Your task to perform on an android device: allow cookies in the chrome app Image 0: 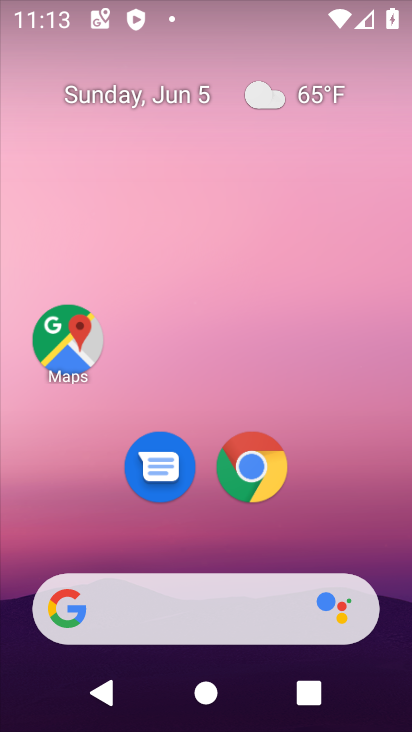
Step 0: click (274, 469)
Your task to perform on an android device: allow cookies in the chrome app Image 1: 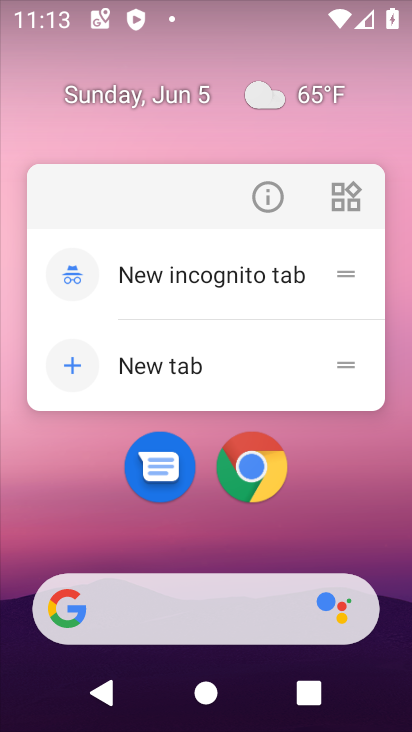
Step 1: click (274, 469)
Your task to perform on an android device: allow cookies in the chrome app Image 2: 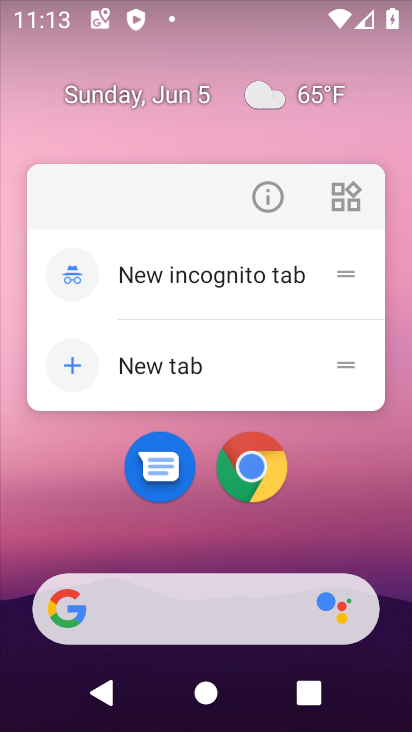
Step 2: click (234, 459)
Your task to perform on an android device: allow cookies in the chrome app Image 3: 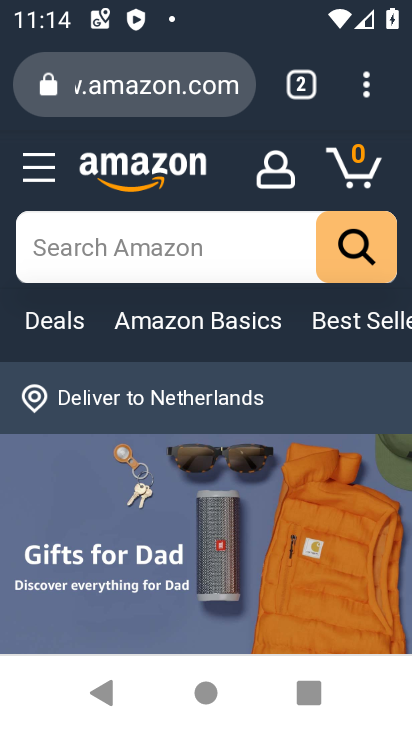
Step 3: drag from (362, 83) to (123, 513)
Your task to perform on an android device: allow cookies in the chrome app Image 4: 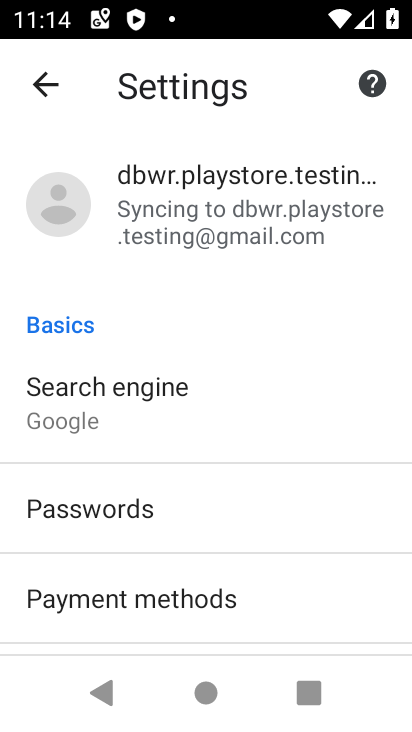
Step 4: drag from (221, 545) to (218, 331)
Your task to perform on an android device: allow cookies in the chrome app Image 5: 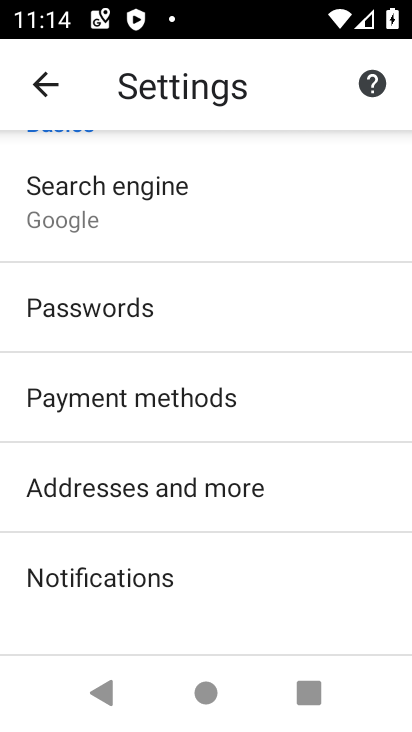
Step 5: drag from (226, 540) to (228, 401)
Your task to perform on an android device: allow cookies in the chrome app Image 6: 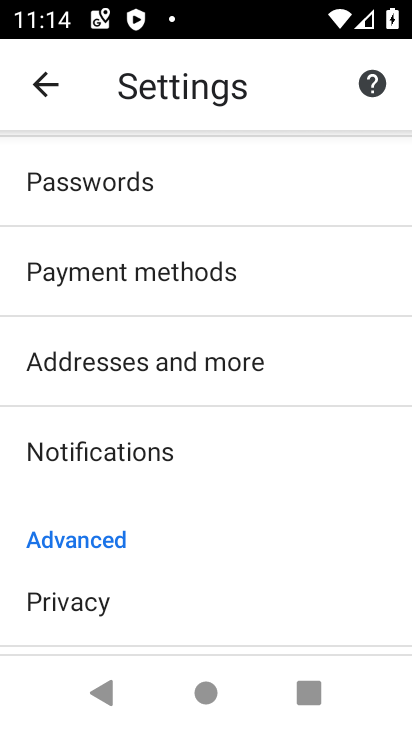
Step 6: drag from (201, 566) to (199, 277)
Your task to perform on an android device: allow cookies in the chrome app Image 7: 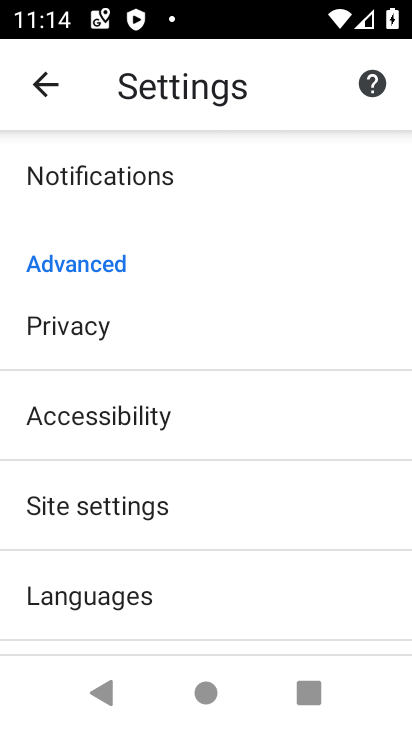
Step 7: drag from (172, 521) to (147, 437)
Your task to perform on an android device: allow cookies in the chrome app Image 8: 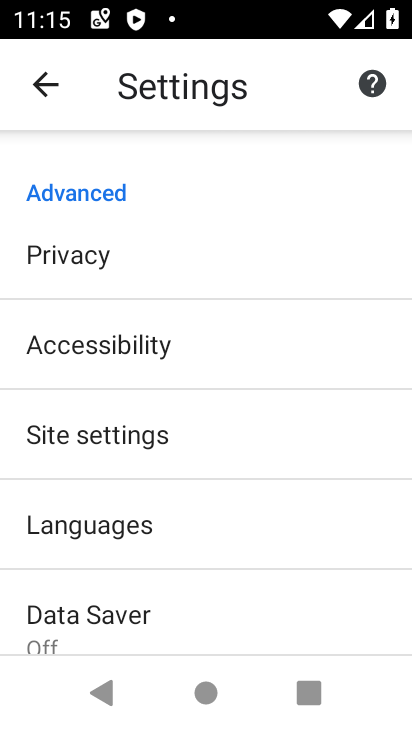
Step 8: drag from (279, 579) to (271, 498)
Your task to perform on an android device: allow cookies in the chrome app Image 9: 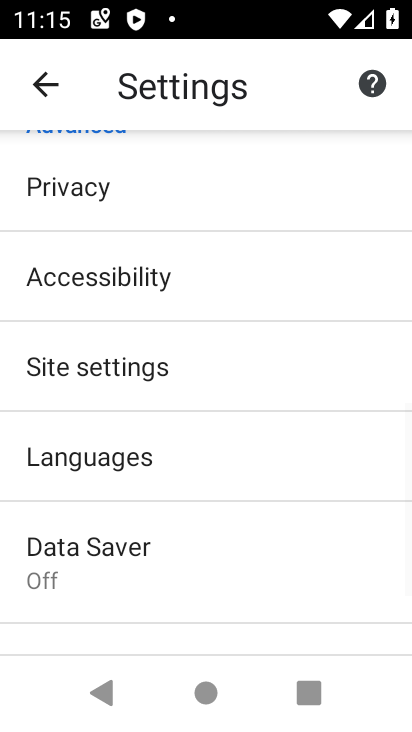
Step 9: click (222, 371)
Your task to perform on an android device: allow cookies in the chrome app Image 10: 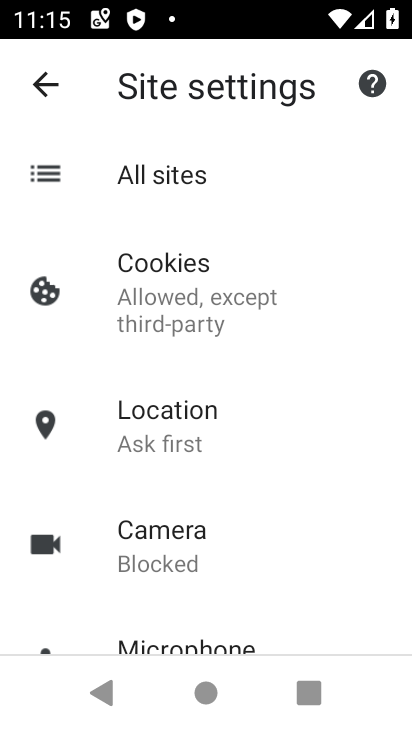
Step 10: click (266, 292)
Your task to perform on an android device: allow cookies in the chrome app Image 11: 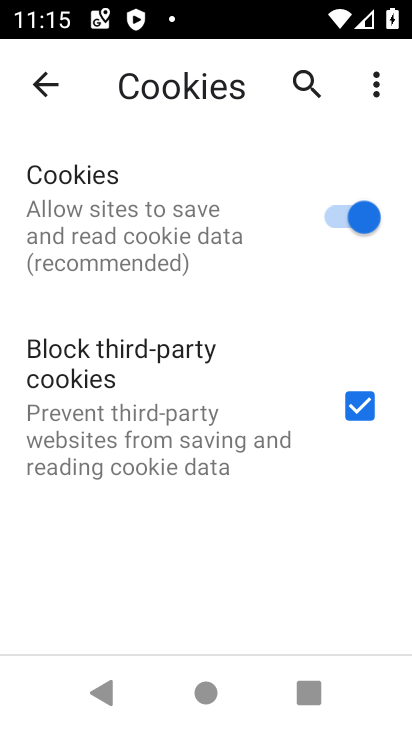
Step 11: task complete